Your task to perform on an android device: toggle pop-ups in chrome Image 0: 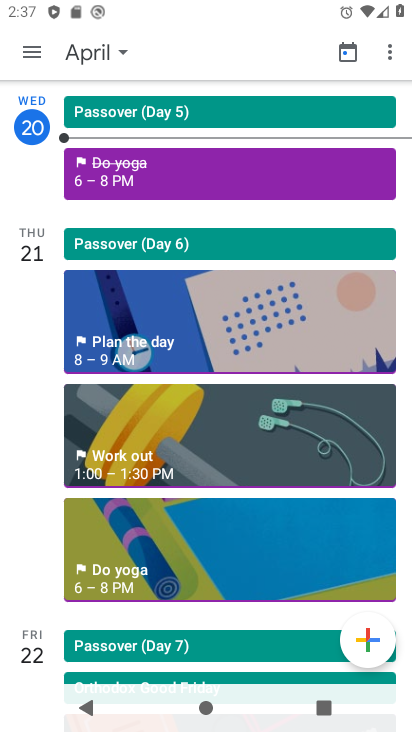
Step 0: press home button
Your task to perform on an android device: toggle pop-ups in chrome Image 1: 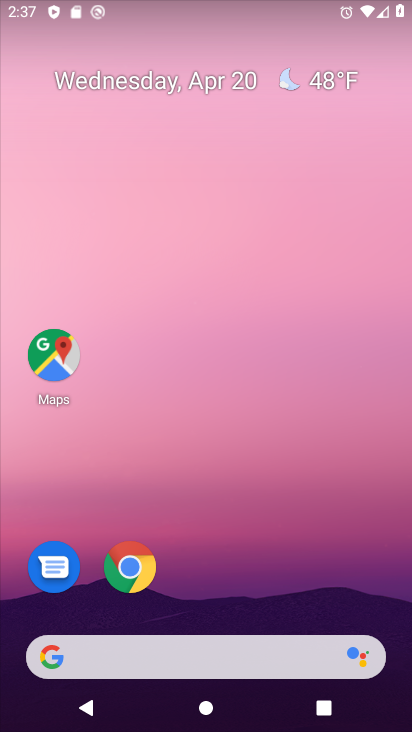
Step 1: click (137, 556)
Your task to perform on an android device: toggle pop-ups in chrome Image 2: 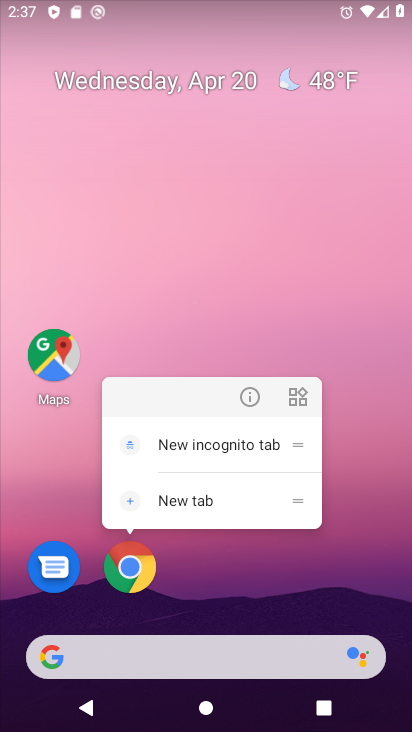
Step 2: click (137, 556)
Your task to perform on an android device: toggle pop-ups in chrome Image 3: 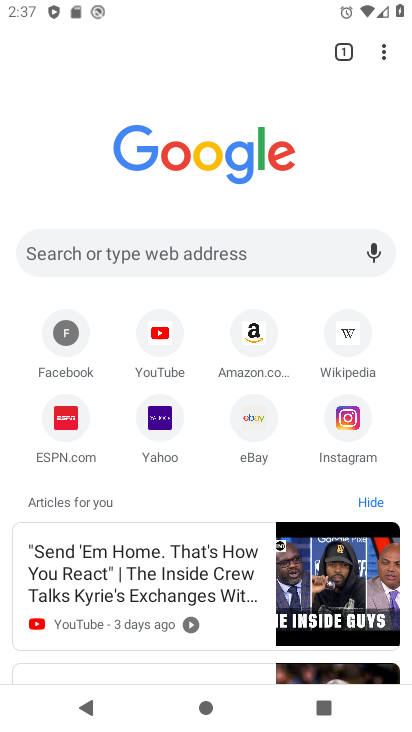
Step 3: click (383, 49)
Your task to perform on an android device: toggle pop-ups in chrome Image 4: 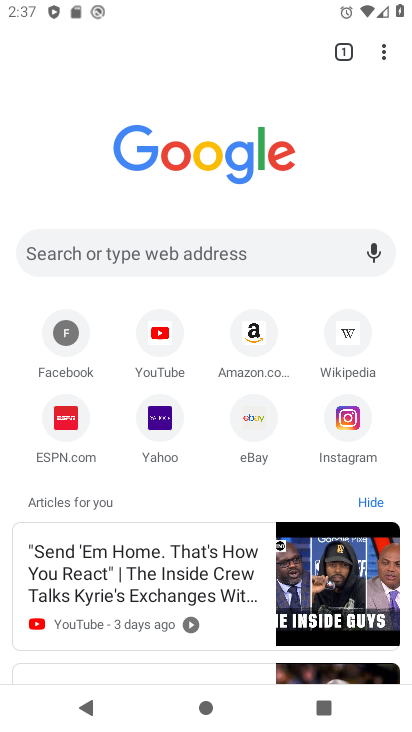
Step 4: drag from (383, 49) to (209, 445)
Your task to perform on an android device: toggle pop-ups in chrome Image 5: 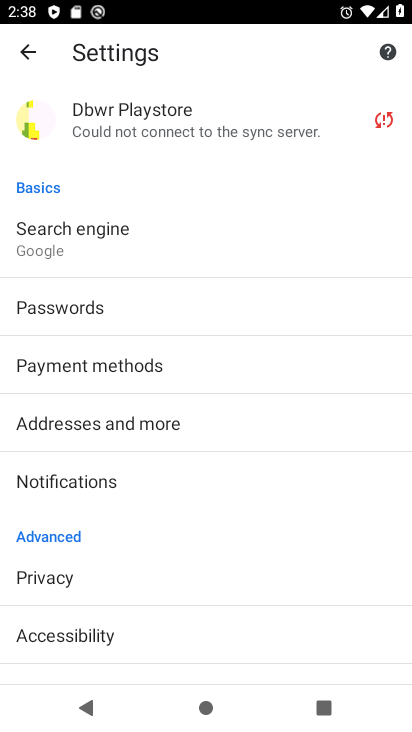
Step 5: drag from (200, 302) to (236, 258)
Your task to perform on an android device: toggle pop-ups in chrome Image 6: 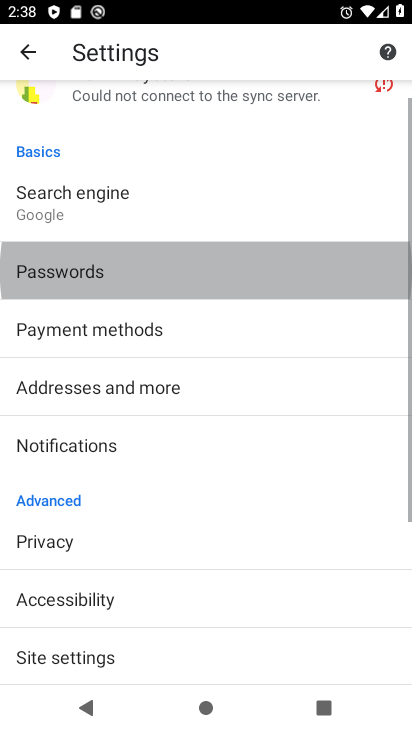
Step 6: drag from (232, 566) to (254, 269)
Your task to perform on an android device: toggle pop-ups in chrome Image 7: 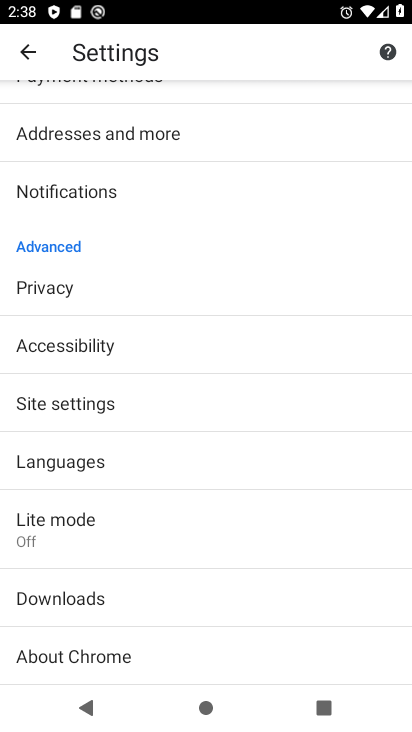
Step 7: click (104, 407)
Your task to perform on an android device: toggle pop-ups in chrome Image 8: 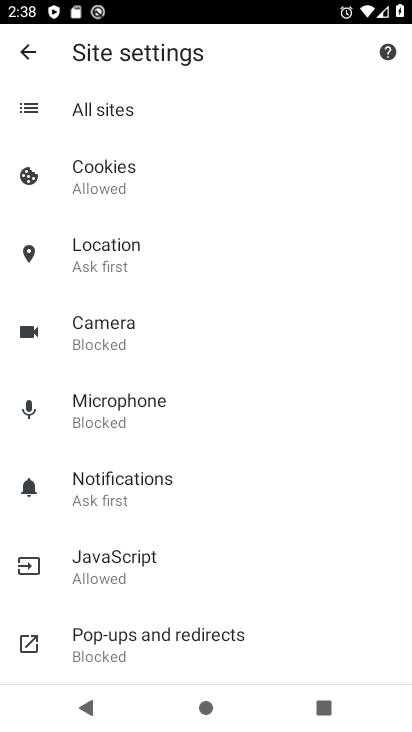
Step 8: click (187, 634)
Your task to perform on an android device: toggle pop-ups in chrome Image 9: 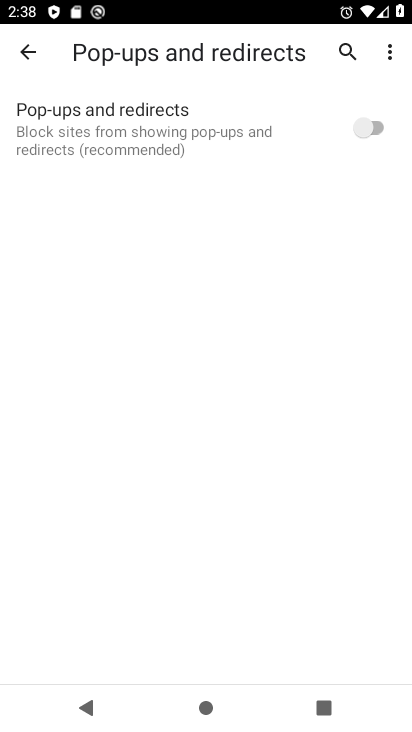
Step 9: click (374, 126)
Your task to perform on an android device: toggle pop-ups in chrome Image 10: 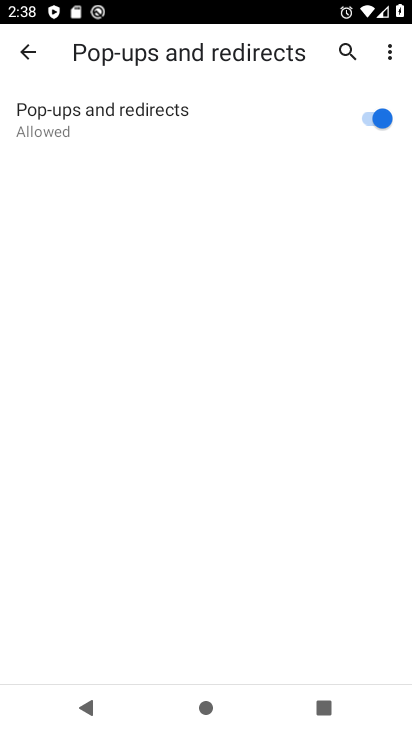
Step 10: task complete